Your task to perform on an android device: visit the assistant section in the google photos Image 0: 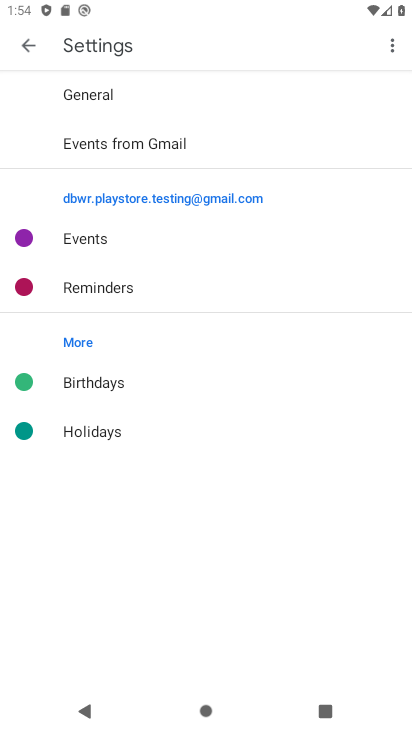
Step 0: press home button
Your task to perform on an android device: visit the assistant section in the google photos Image 1: 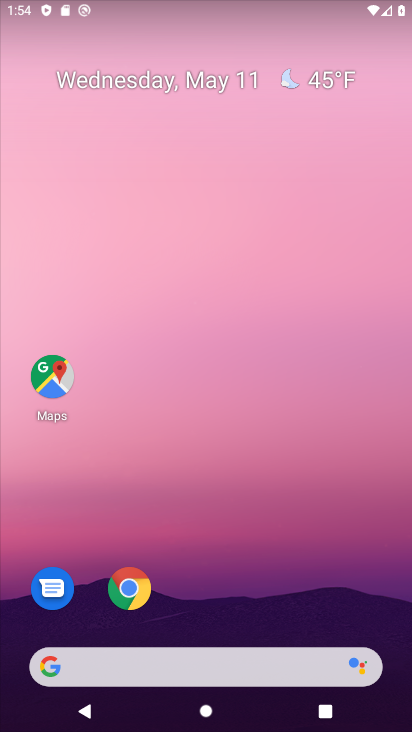
Step 1: drag from (213, 613) to (263, 210)
Your task to perform on an android device: visit the assistant section in the google photos Image 2: 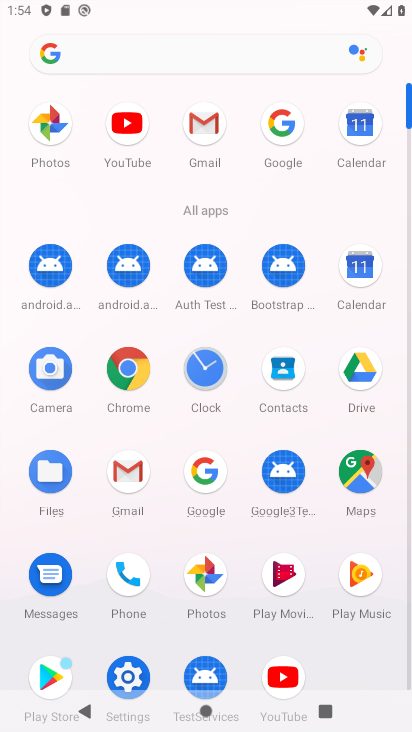
Step 2: click (212, 583)
Your task to perform on an android device: visit the assistant section in the google photos Image 3: 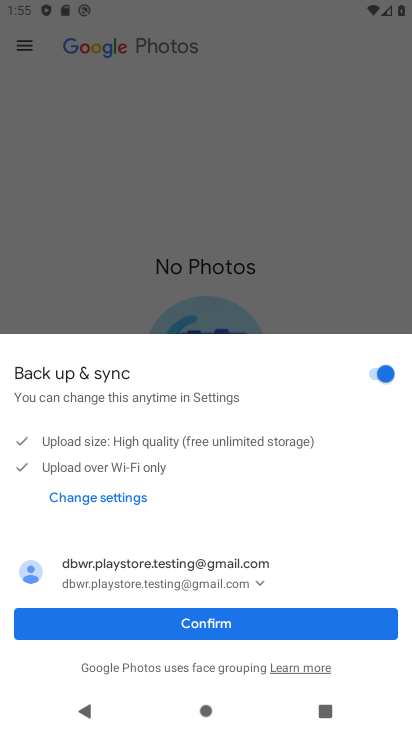
Step 3: click (206, 615)
Your task to perform on an android device: visit the assistant section in the google photos Image 4: 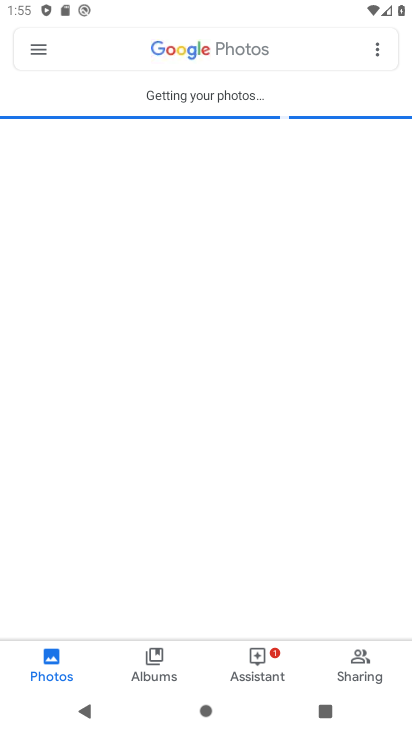
Step 4: click (266, 664)
Your task to perform on an android device: visit the assistant section in the google photos Image 5: 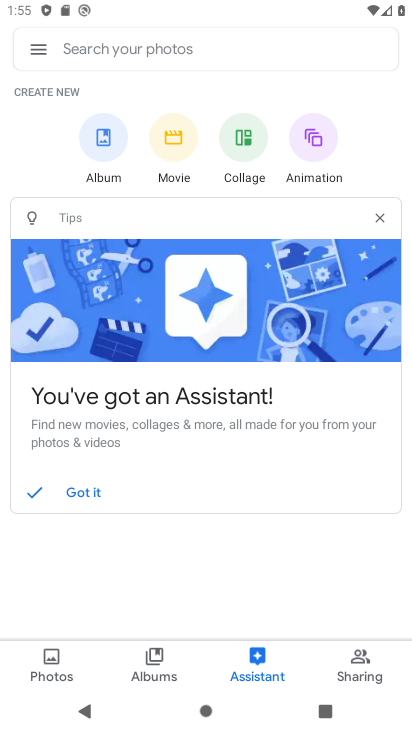
Step 5: task complete